Your task to perform on an android device: Go to location settings Image 0: 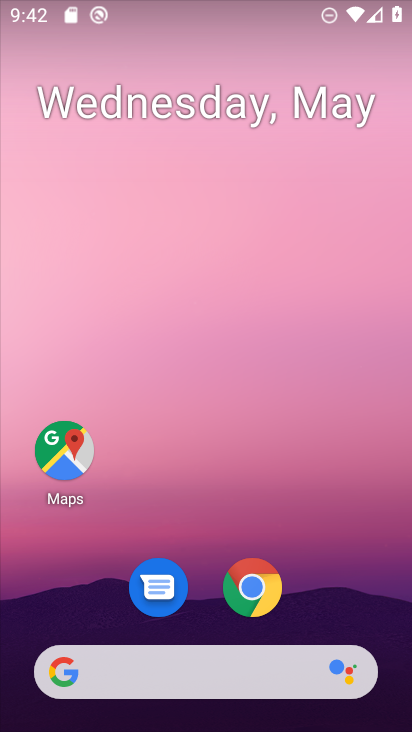
Step 0: drag from (199, 725) to (192, 194)
Your task to perform on an android device: Go to location settings Image 1: 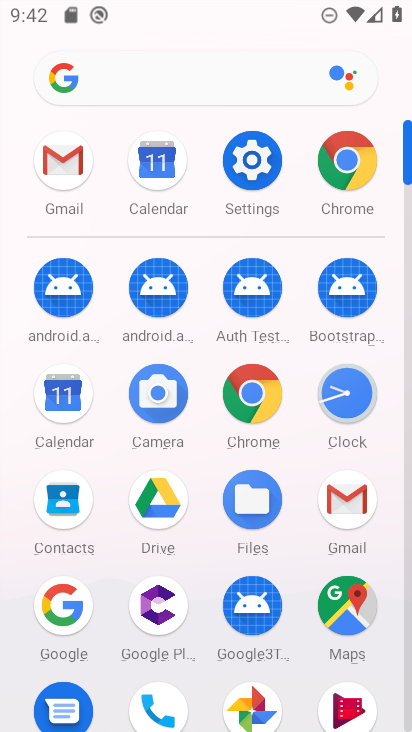
Step 1: click (249, 167)
Your task to perform on an android device: Go to location settings Image 2: 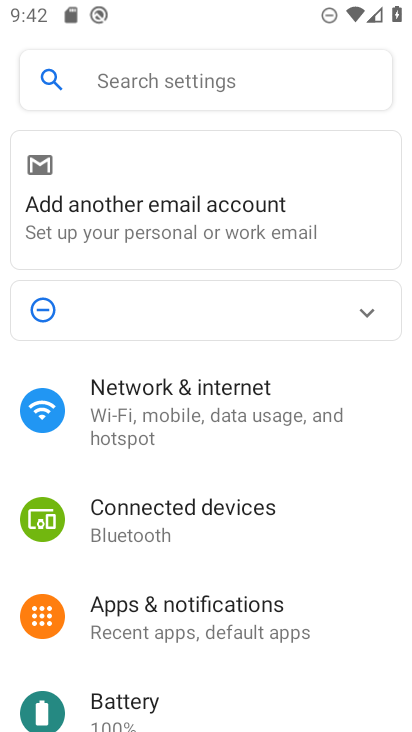
Step 2: drag from (212, 677) to (215, 254)
Your task to perform on an android device: Go to location settings Image 3: 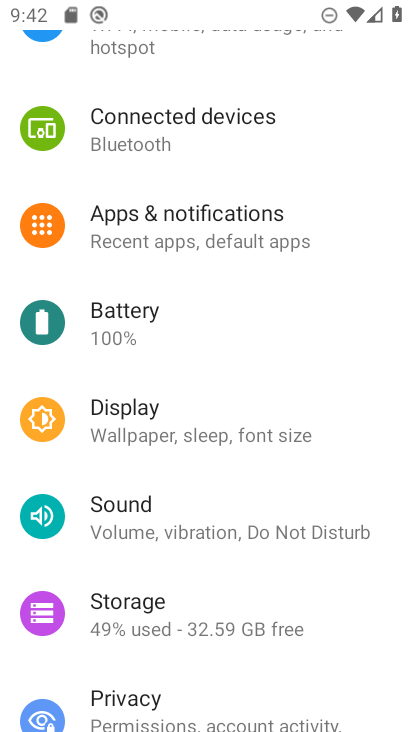
Step 3: drag from (174, 667) to (175, 310)
Your task to perform on an android device: Go to location settings Image 4: 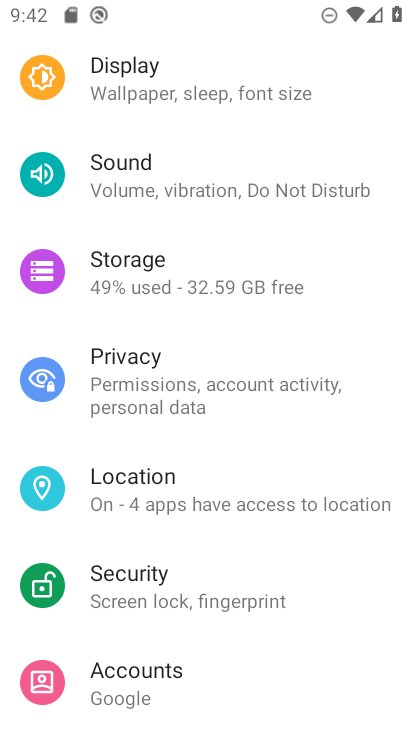
Step 4: click (146, 489)
Your task to perform on an android device: Go to location settings Image 5: 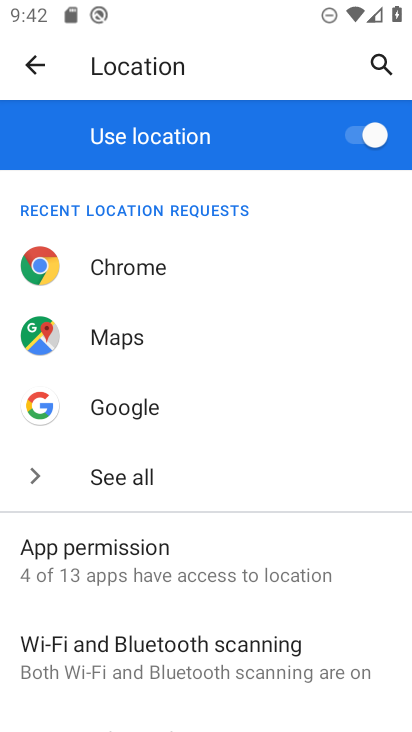
Step 5: task complete